Your task to perform on an android device: open app "Truecaller" (install if not already installed) Image 0: 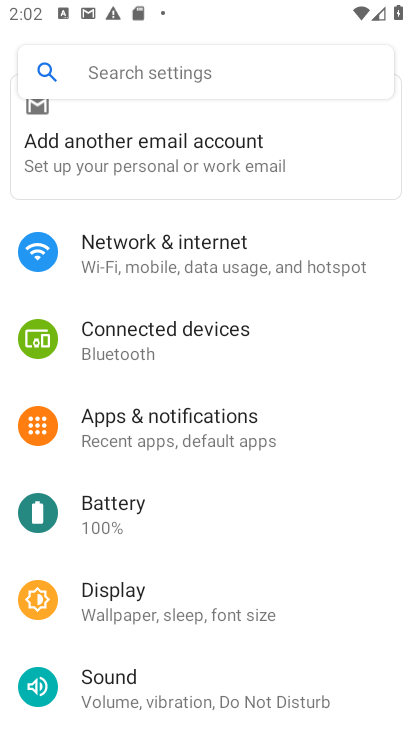
Step 0: press home button
Your task to perform on an android device: open app "Truecaller" (install if not already installed) Image 1: 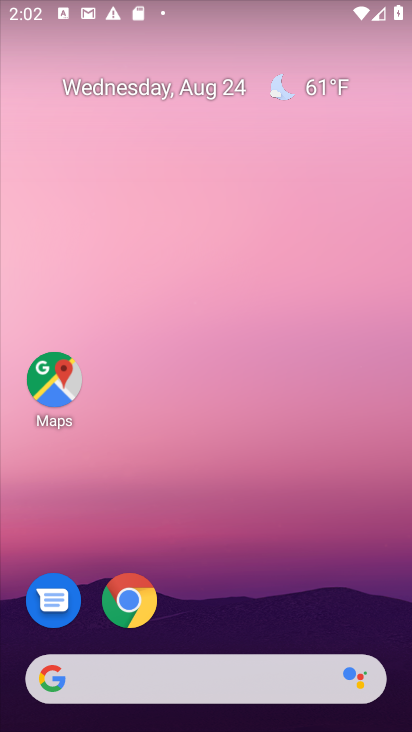
Step 1: drag from (201, 624) to (239, 0)
Your task to perform on an android device: open app "Truecaller" (install if not already installed) Image 2: 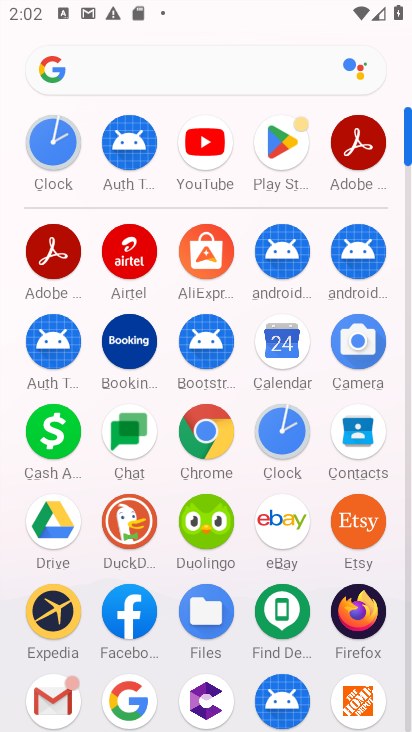
Step 2: click (290, 140)
Your task to perform on an android device: open app "Truecaller" (install if not already installed) Image 3: 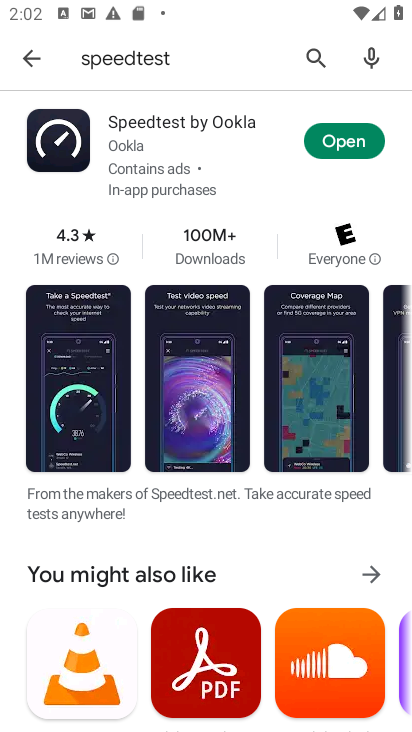
Step 3: click (306, 78)
Your task to perform on an android device: open app "Truecaller" (install if not already installed) Image 4: 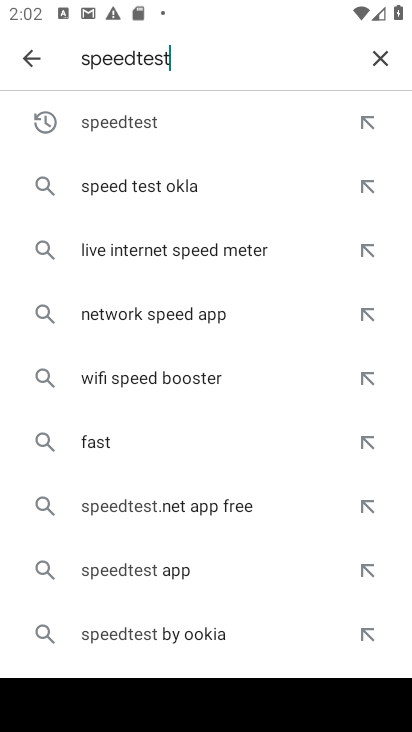
Step 4: click (370, 71)
Your task to perform on an android device: open app "Truecaller" (install if not already installed) Image 5: 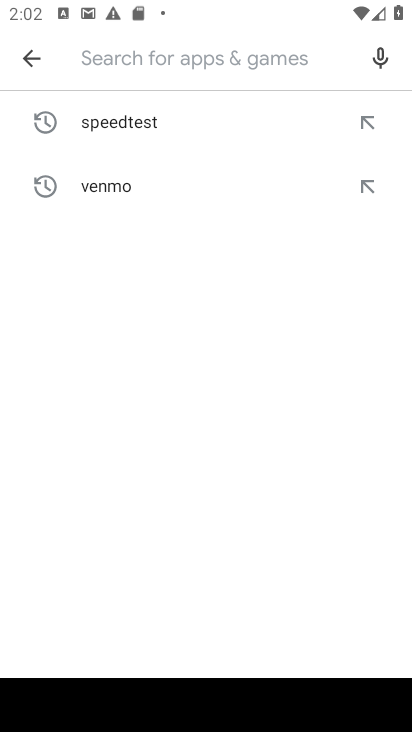
Step 5: type "truecaller"
Your task to perform on an android device: open app "Truecaller" (install if not already installed) Image 6: 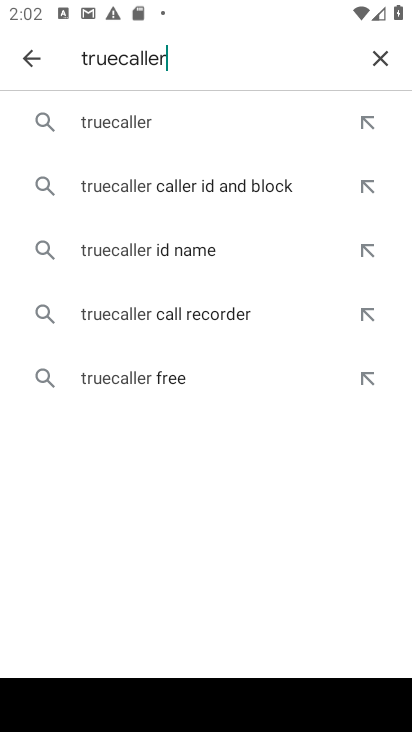
Step 6: click (170, 136)
Your task to perform on an android device: open app "Truecaller" (install if not already installed) Image 7: 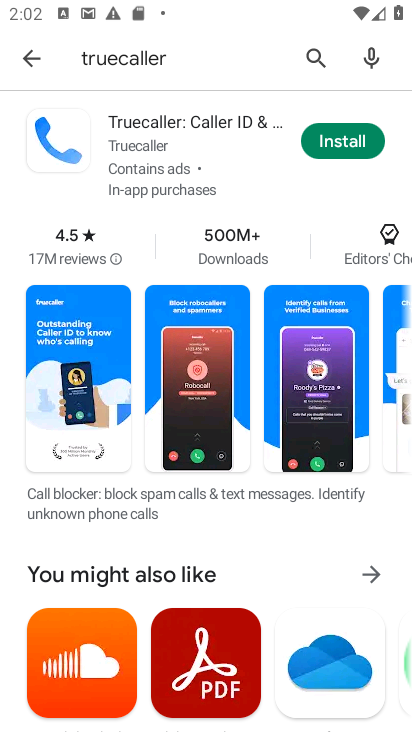
Step 7: click (354, 138)
Your task to perform on an android device: open app "Truecaller" (install if not already installed) Image 8: 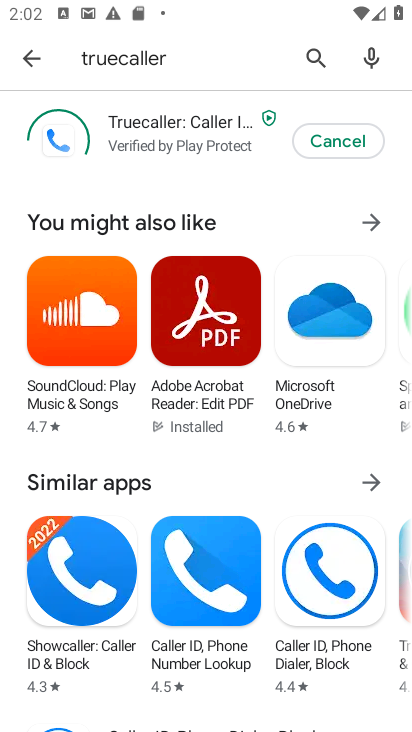
Step 8: task complete